Your task to perform on an android device: change the clock style Image 0: 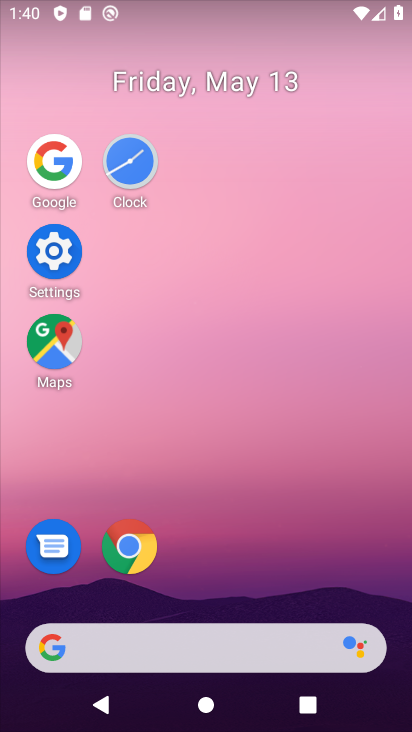
Step 0: click (129, 172)
Your task to perform on an android device: change the clock style Image 1: 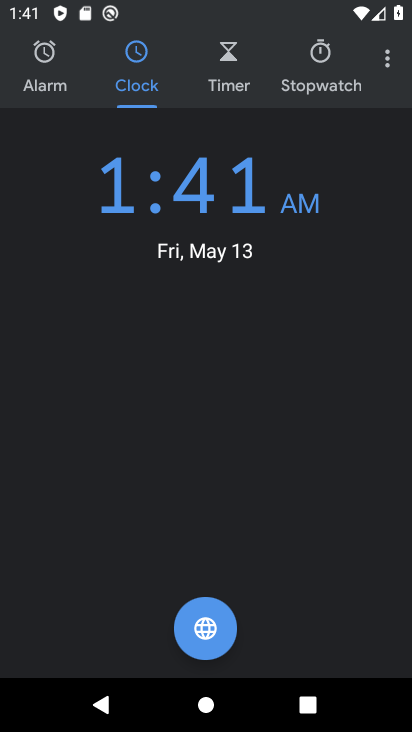
Step 1: click (389, 62)
Your task to perform on an android device: change the clock style Image 2: 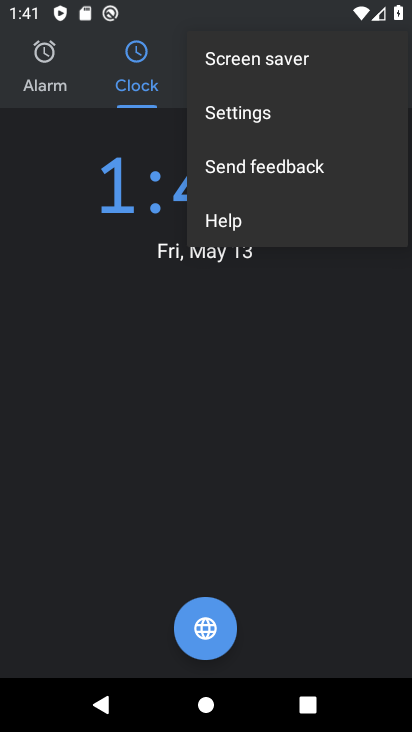
Step 2: click (297, 130)
Your task to perform on an android device: change the clock style Image 3: 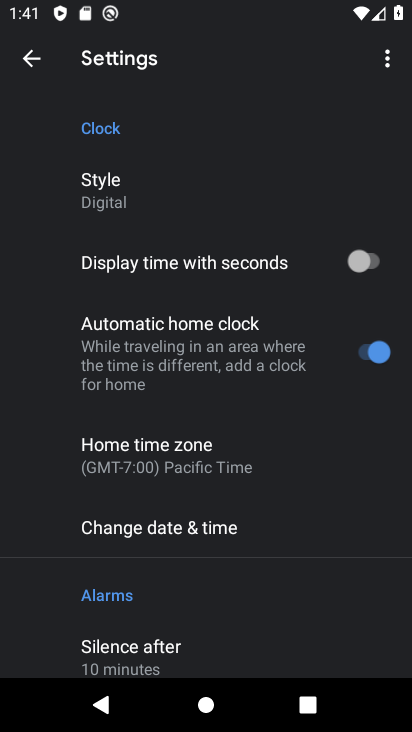
Step 3: click (147, 196)
Your task to perform on an android device: change the clock style Image 4: 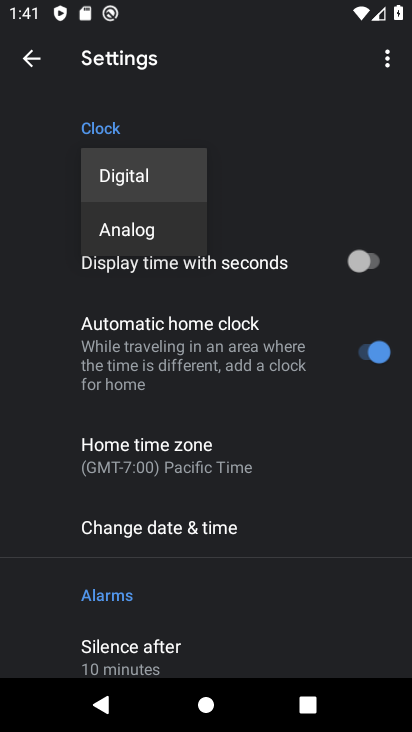
Step 4: click (155, 226)
Your task to perform on an android device: change the clock style Image 5: 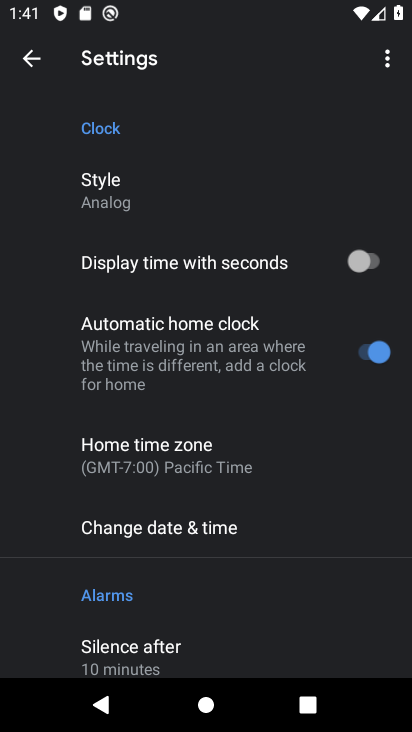
Step 5: task complete